Your task to perform on an android device: manage bookmarks in the chrome app Image 0: 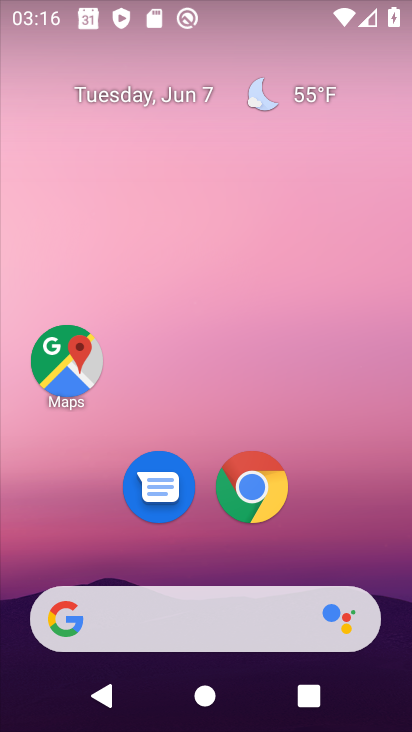
Step 0: drag from (238, 671) to (235, 117)
Your task to perform on an android device: manage bookmarks in the chrome app Image 1: 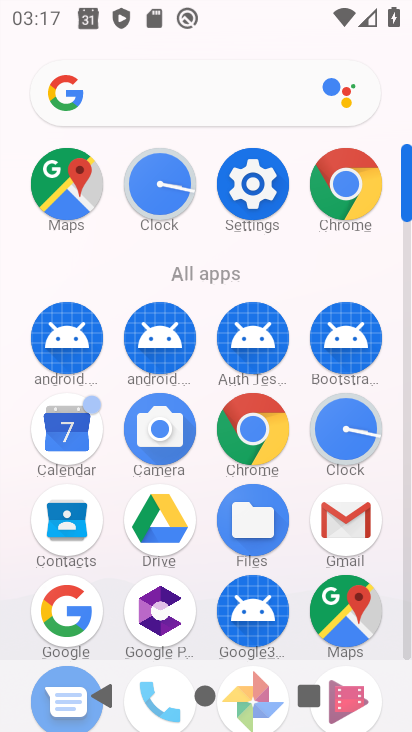
Step 1: click (326, 181)
Your task to perform on an android device: manage bookmarks in the chrome app Image 2: 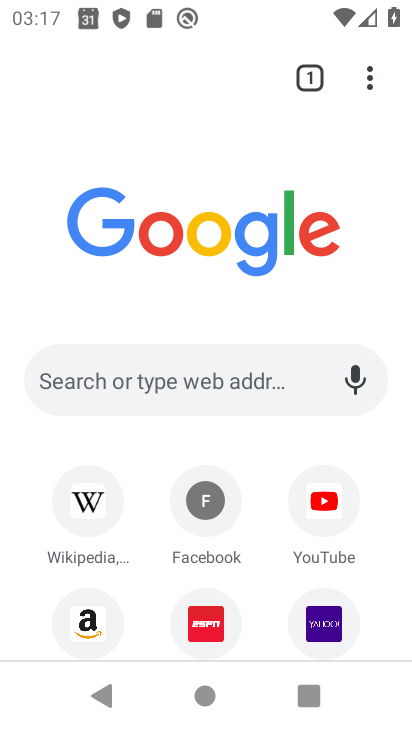
Step 2: drag from (369, 87) to (80, 305)
Your task to perform on an android device: manage bookmarks in the chrome app Image 3: 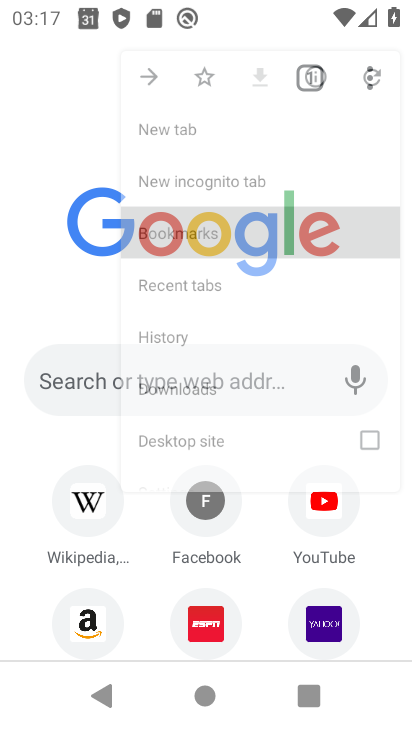
Step 3: click (79, 305)
Your task to perform on an android device: manage bookmarks in the chrome app Image 4: 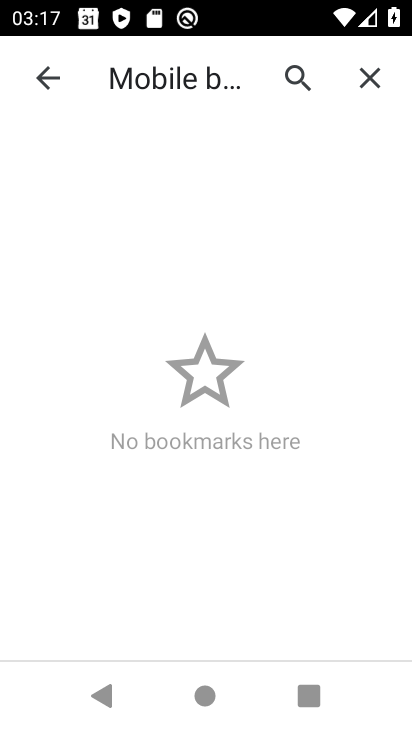
Step 4: task complete